Your task to perform on an android device: Go to settings Image 0: 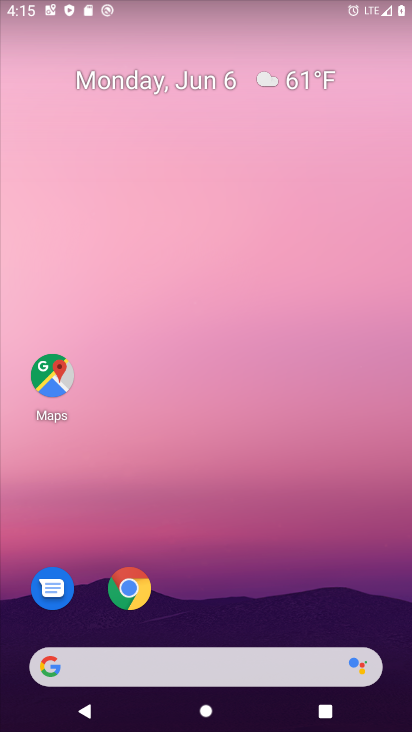
Step 0: press home button
Your task to perform on an android device: Go to settings Image 1: 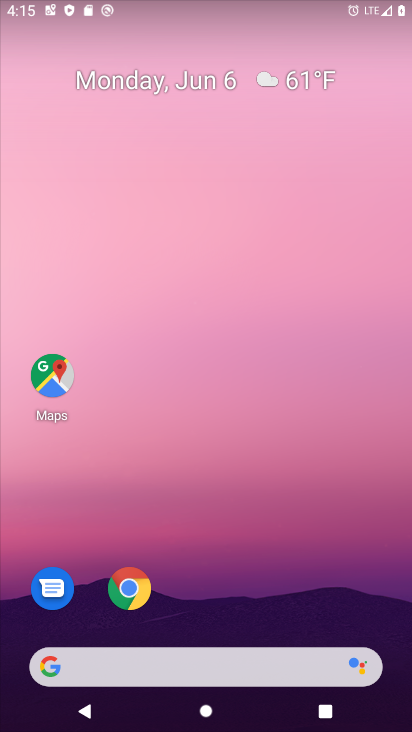
Step 1: drag from (244, 610) to (186, 236)
Your task to perform on an android device: Go to settings Image 2: 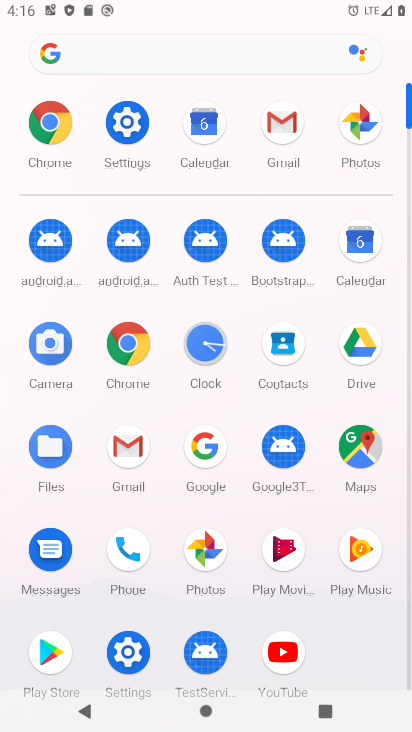
Step 2: click (119, 126)
Your task to perform on an android device: Go to settings Image 3: 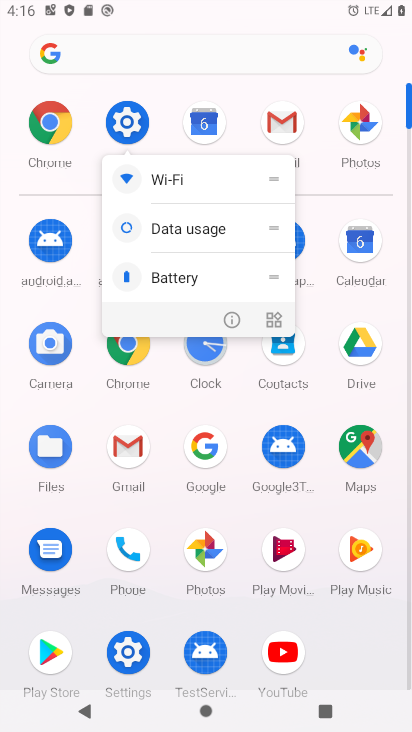
Step 3: click (119, 126)
Your task to perform on an android device: Go to settings Image 4: 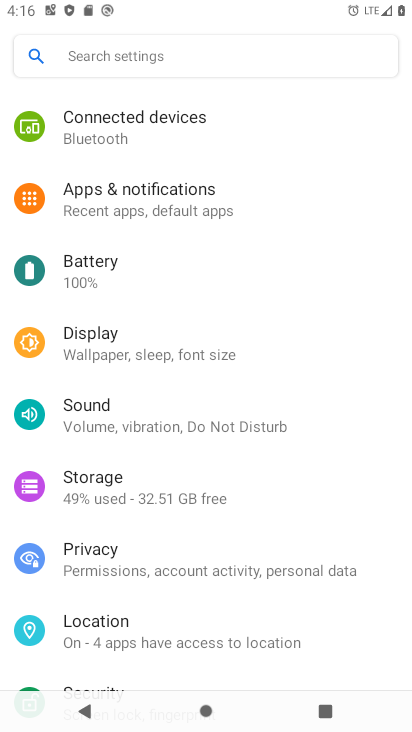
Step 4: task complete